Your task to perform on an android device: Open CNN.com Image 0: 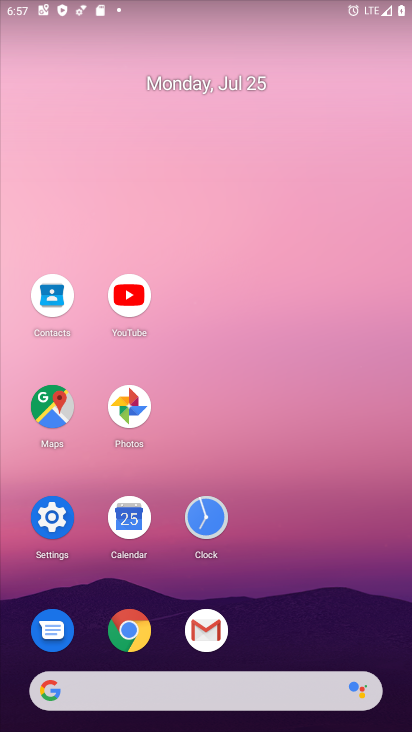
Step 0: click (133, 625)
Your task to perform on an android device: Open CNN.com Image 1: 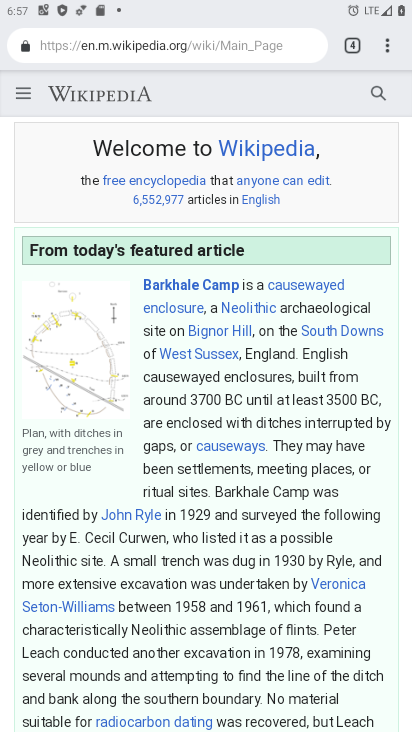
Step 1: click (389, 39)
Your task to perform on an android device: Open CNN.com Image 2: 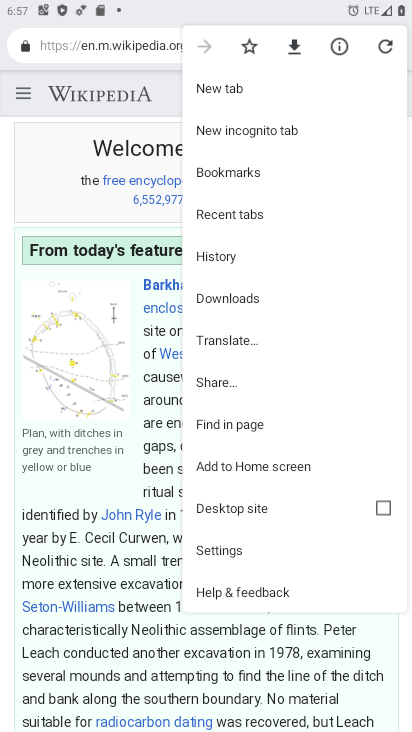
Step 2: click (214, 81)
Your task to perform on an android device: Open CNN.com Image 3: 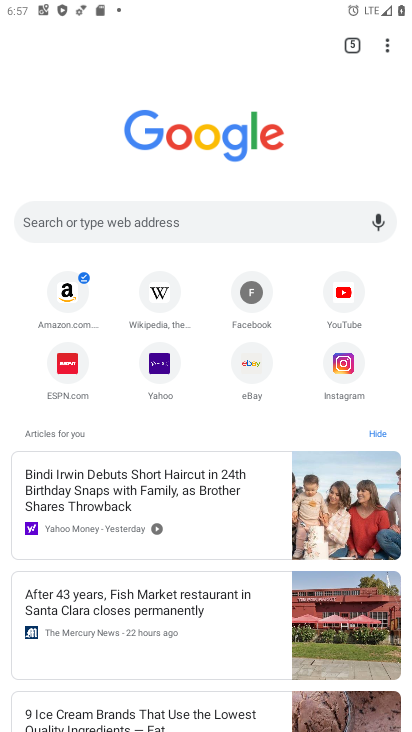
Step 3: click (138, 219)
Your task to perform on an android device: Open CNN.com Image 4: 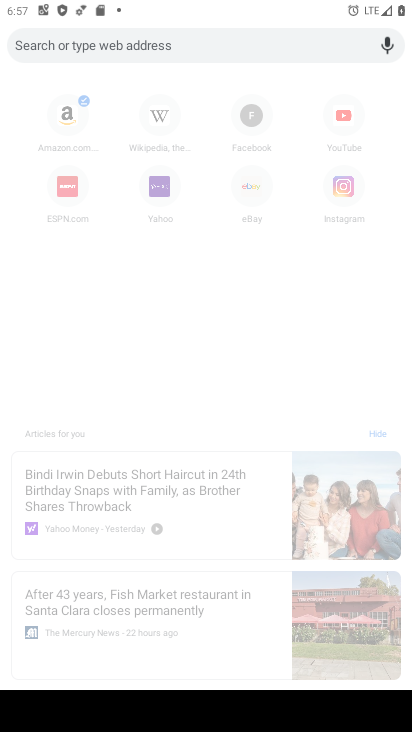
Step 4: type "cnn.com"
Your task to perform on an android device: Open CNN.com Image 5: 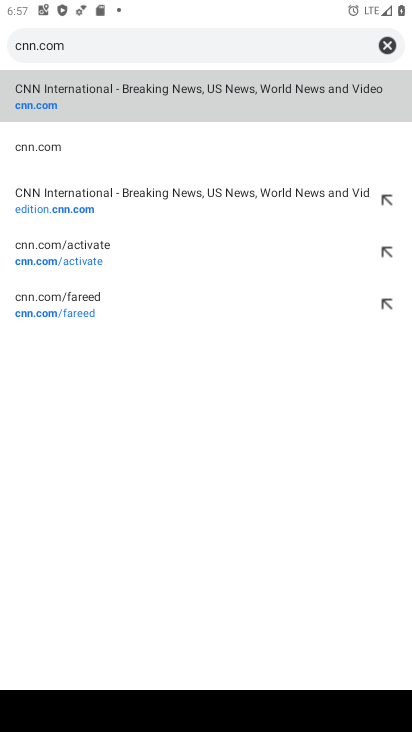
Step 5: click (96, 96)
Your task to perform on an android device: Open CNN.com Image 6: 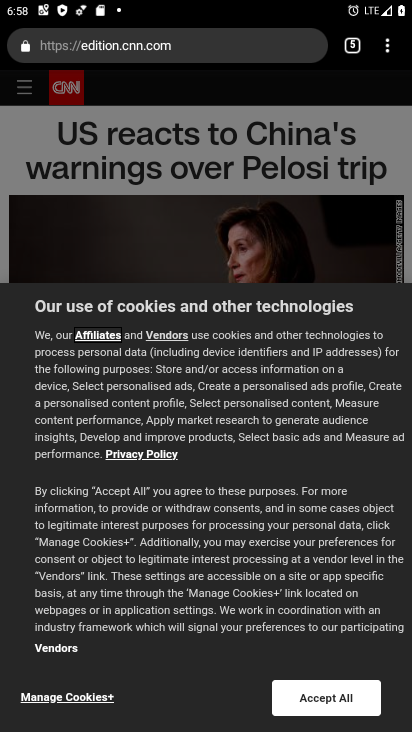
Step 6: task complete